Your task to perform on an android device: Open the stopwatch Image 0: 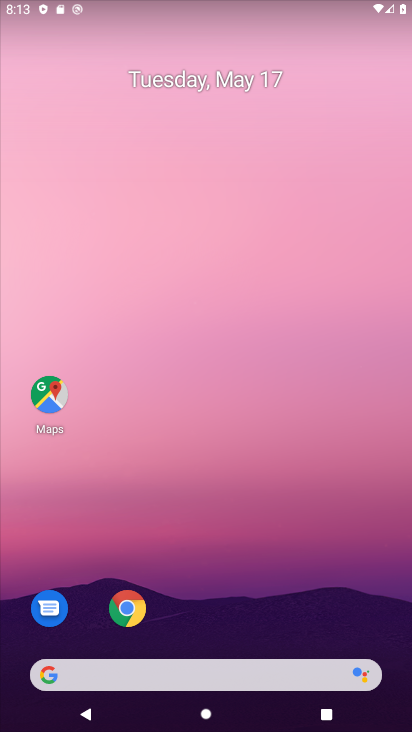
Step 0: drag from (348, 600) to (342, 153)
Your task to perform on an android device: Open the stopwatch Image 1: 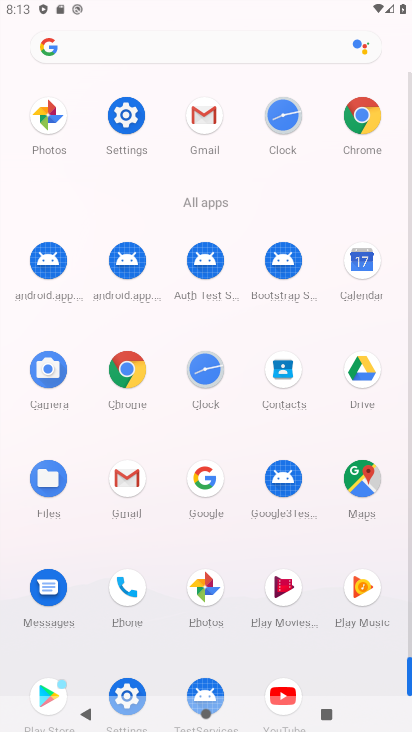
Step 1: click (210, 379)
Your task to perform on an android device: Open the stopwatch Image 2: 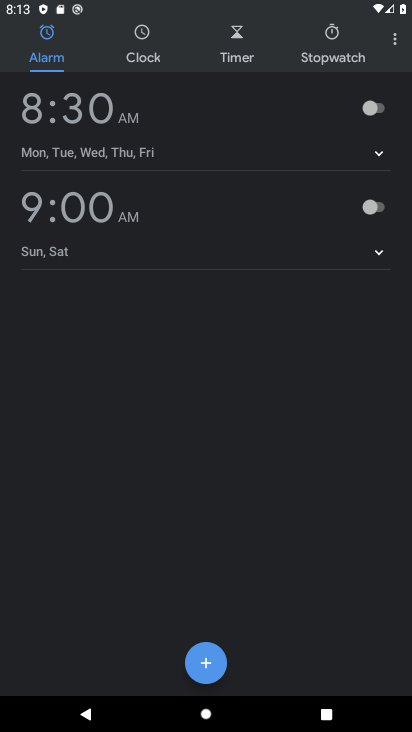
Step 2: click (328, 39)
Your task to perform on an android device: Open the stopwatch Image 3: 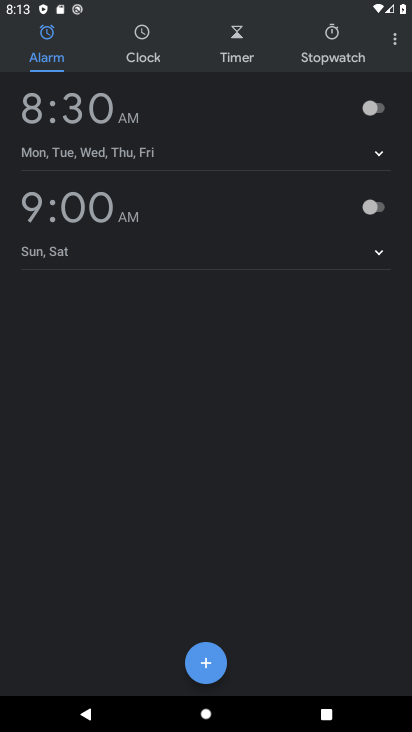
Step 3: click (337, 53)
Your task to perform on an android device: Open the stopwatch Image 4: 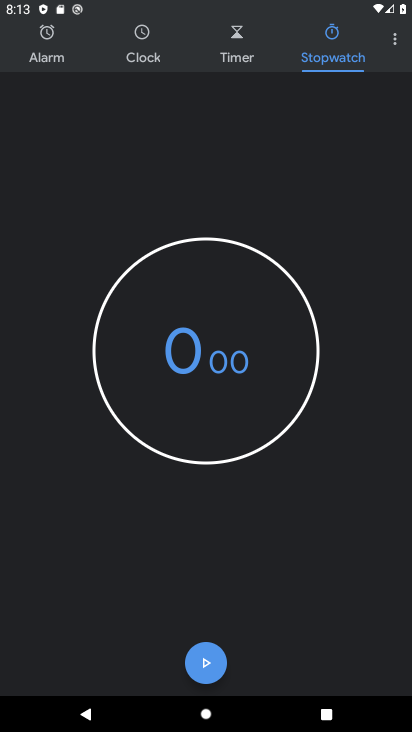
Step 4: task complete